Your task to perform on an android device: turn off data saver in the chrome app Image 0: 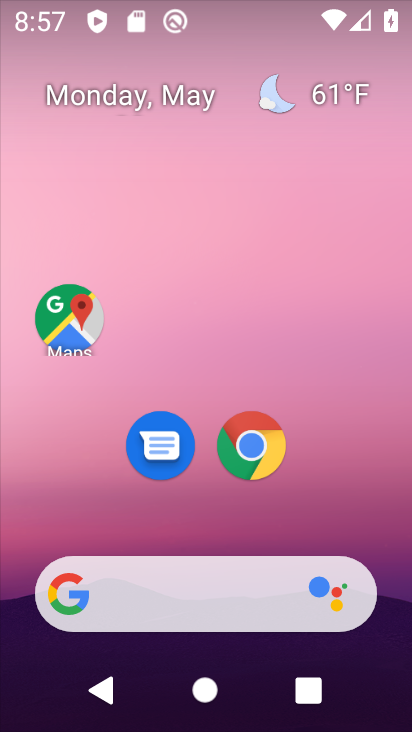
Step 0: drag from (373, 517) to (318, 104)
Your task to perform on an android device: turn off data saver in the chrome app Image 1: 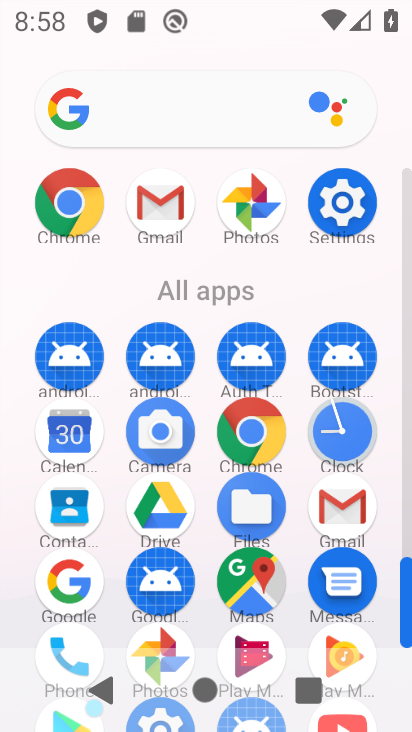
Step 1: click (269, 435)
Your task to perform on an android device: turn off data saver in the chrome app Image 2: 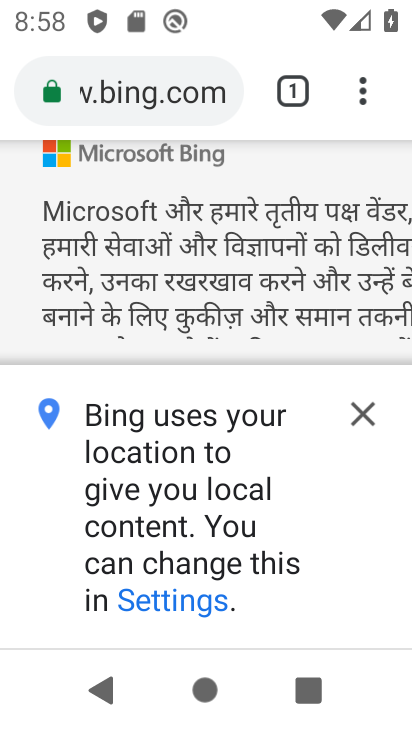
Step 2: click (362, 99)
Your task to perform on an android device: turn off data saver in the chrome app Image 3: 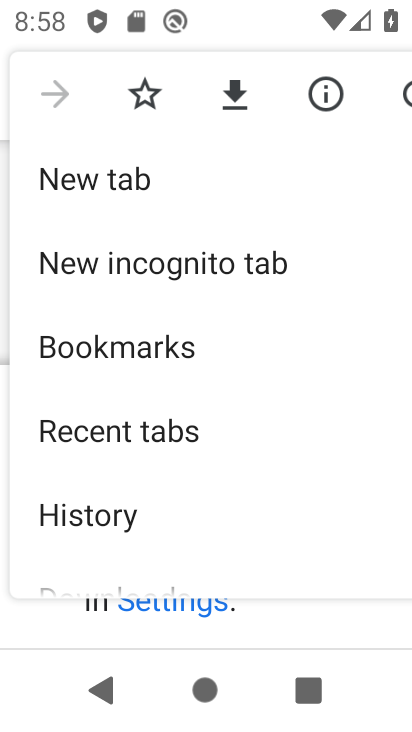
Step 3: drag from (352, 505) to (371, 289)
Your task to perform on an android device: turn off data saver in the chrome app Image 4: 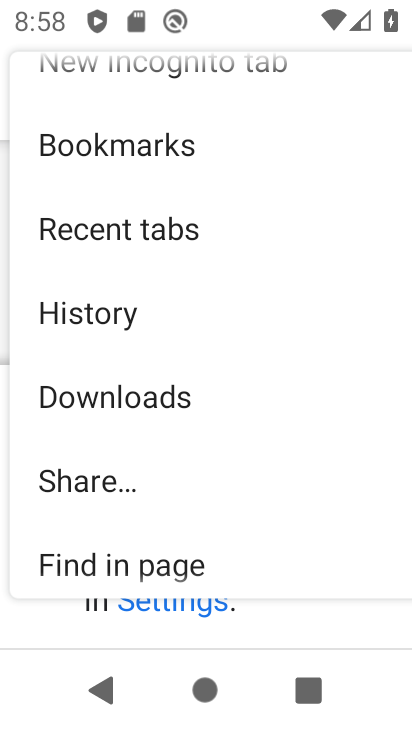
Step 4: drag from (306, 476) to (320, 358)
Your task to perform on an android device: turn off data saver in the chrome app Image 5: 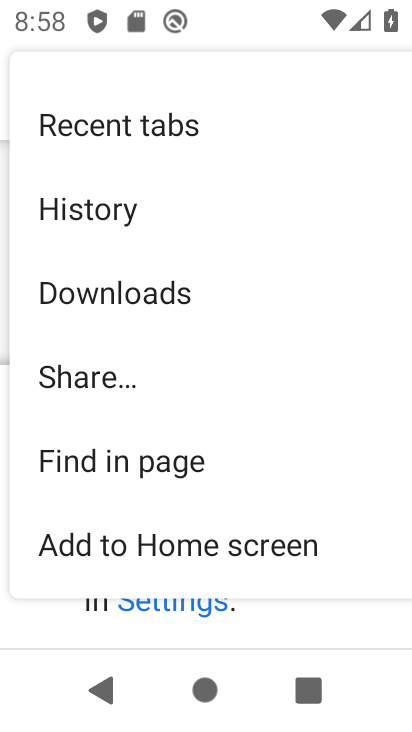
Step 5: drag from (345, 486) to (362, 349)
Your task to perform on an android device: turn off data saver in the chrome app Image 6: 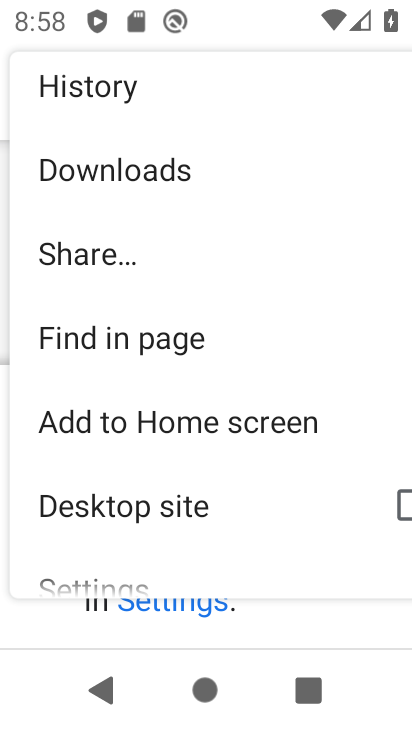
Step 6: drag from (319, 500) to (332, 355)
Your task to perform on an android device: turn off data saver in the chrome app Image 7: 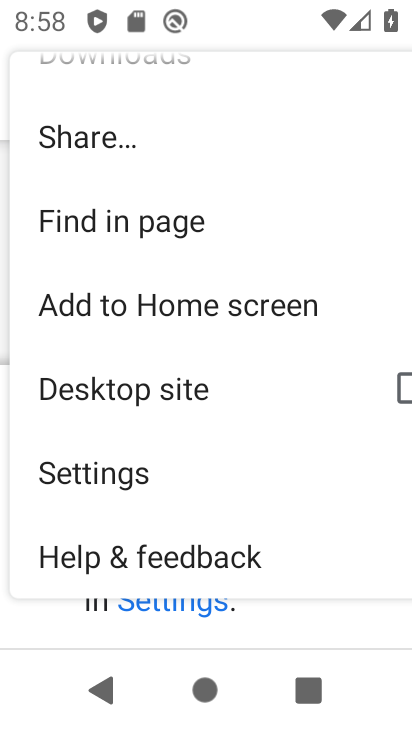
Step 7: drag from (298, 463) to (302, 328)
Your task to perform on an android device: turn off data saver in the chrome app Image 8: 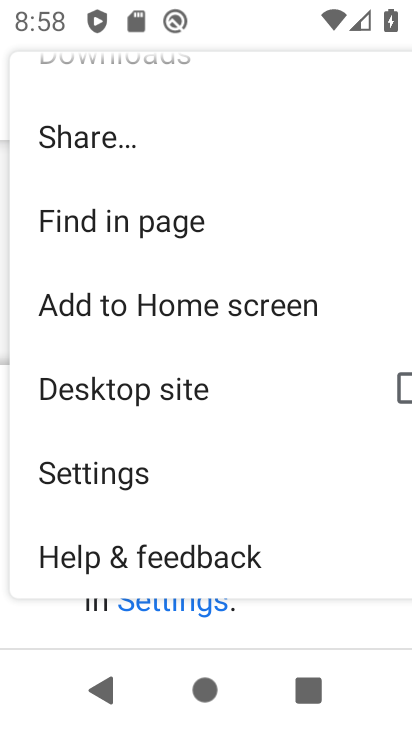
Step 8: click (141, 481)
Your task to perform on an android device: turn off data saver in the chrome app Image 9: 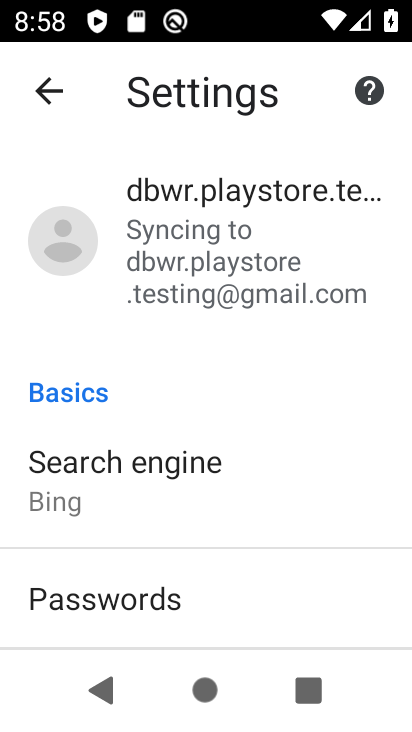
Step 9: drag from (325, 517) to (346, 400)
Your task to perform on an android device: turn off data saver in the chrome app Image 10: 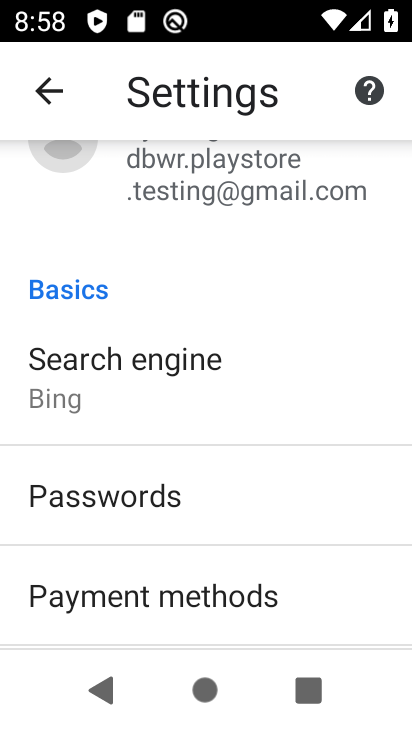
Step 10: drag from (344, 552) to (349, 449)
Your task to perform on an android device: turn off data saver in the chrome app Image 11: 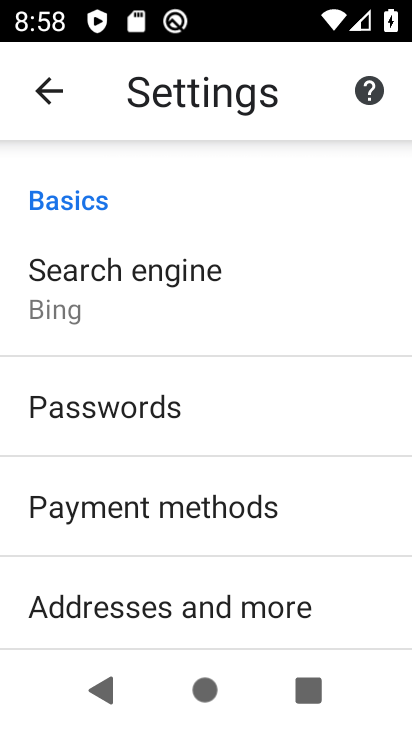
Step 11: drag from (359, 496) to (351, 408)
Your task to perform on an android device: turn off data saver in the chrome app Image 12: 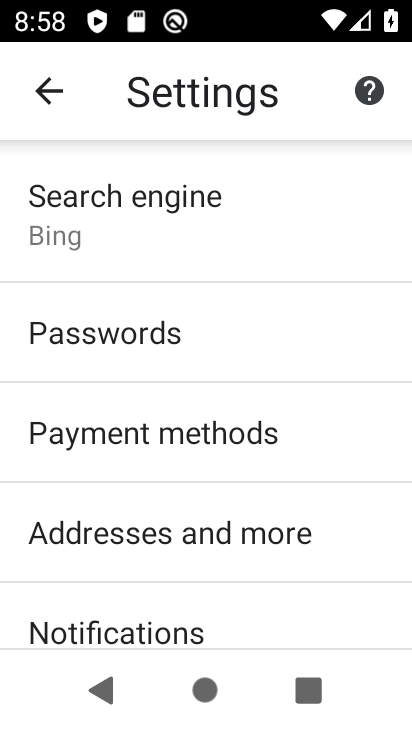
Step 12: drag from (352, 550) to (365, 459)
Your task to perform on an android device: turn off data saver in the chrome app Image 13: 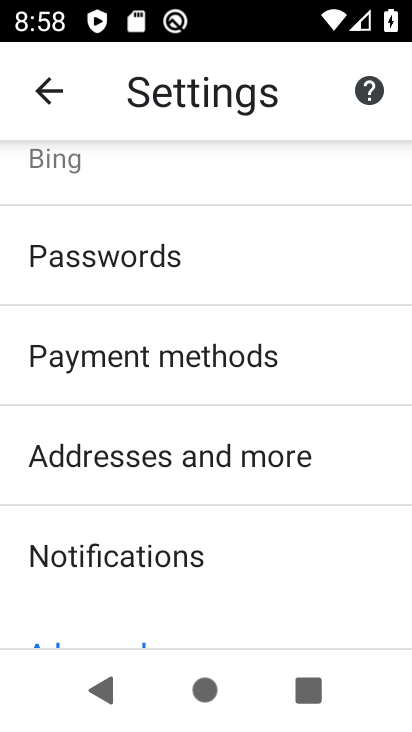
Step 13: drag from (360, 564) to (372, 481)
Your task to perform on an android device: turn off data saver in the chrome app Image 14: 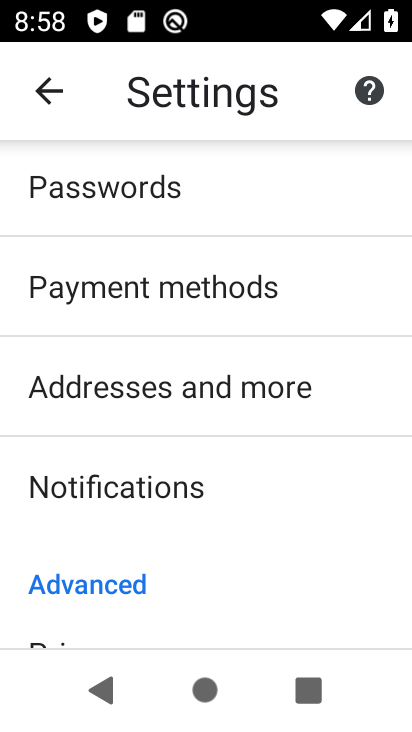
Step 14: drag from (352, 580) to (345, 457)
Your task to perform on an android device: turn off data saver in the chrome app Image 15: 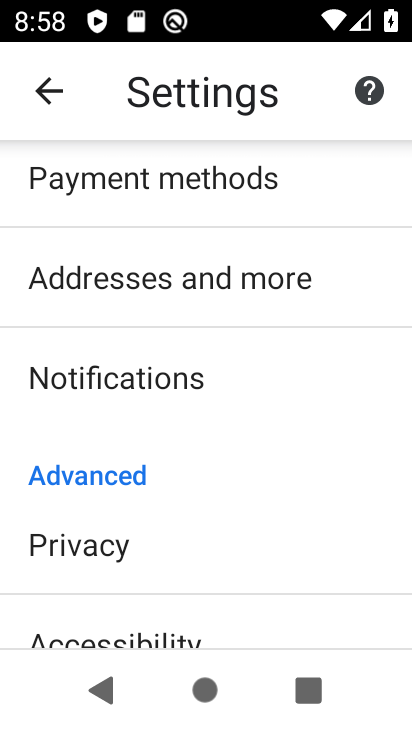
Step 15: drag from (346, 534) to (344, 449)
Your task to perform on an android device: turn off data saver in the chrome app Image 16: 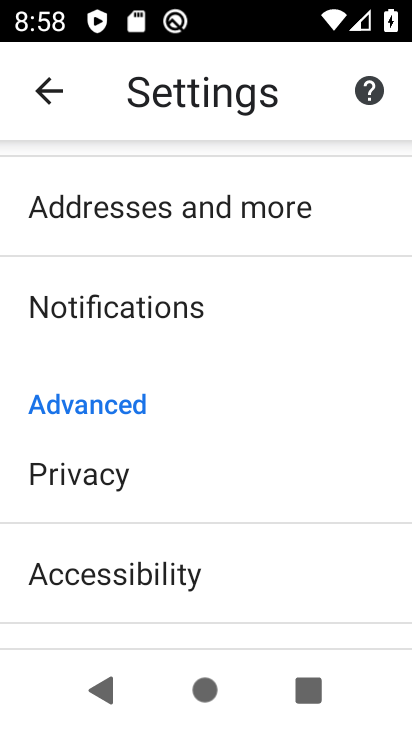
Step 16: drag from (356, 537) to (356, 437)
Your task to perform on an android device: turn off data saver in the chrome app Image 17: 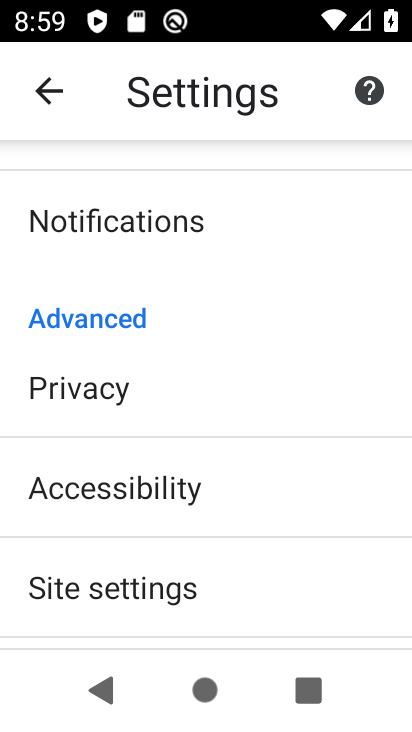
Step 17: drag from (352, 523) to (361, 424)
Your task to perform on an android device: turn off data saver in the chrome app Image 18: 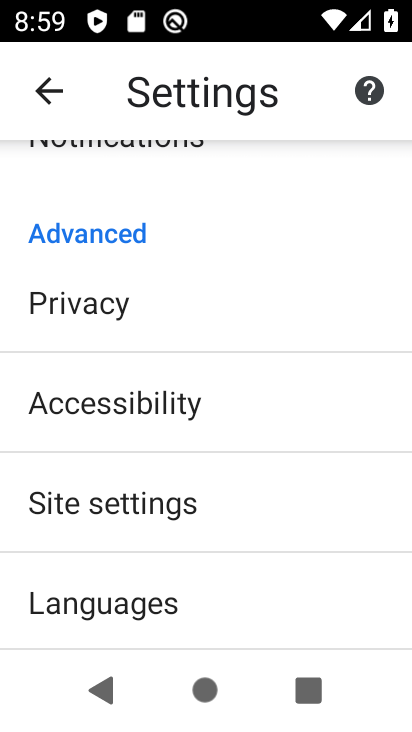
Step 18: drag from (345, 526) to (351, 423)
Your task to perform on an android device: turn off data saver in the chrome app Image 19: 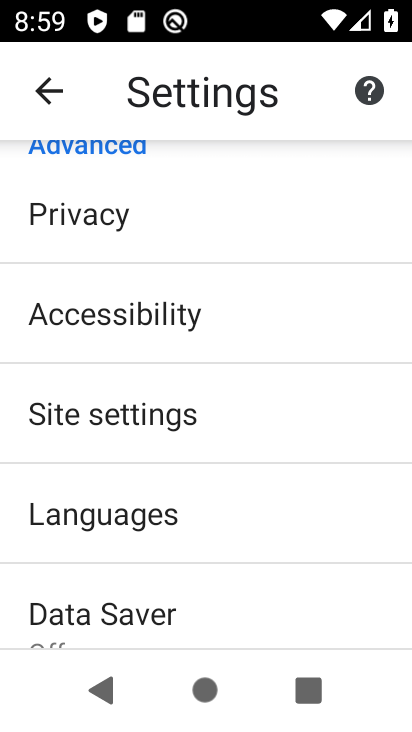
Step 19: drag from (327, 559) to (337, 398)
Your task to perform on an android device: turn off data saver in the chrome app Image 20: 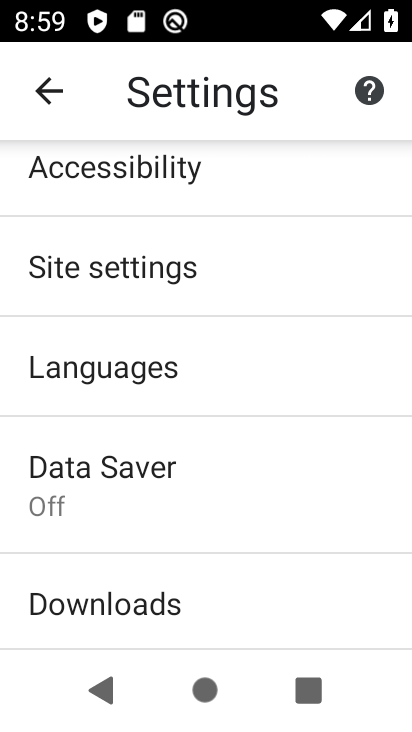
Step 20: drag from (344, 568) to (347, 403)
Your task to perform on an android device: turn off data saver in the chrome app Image 21: 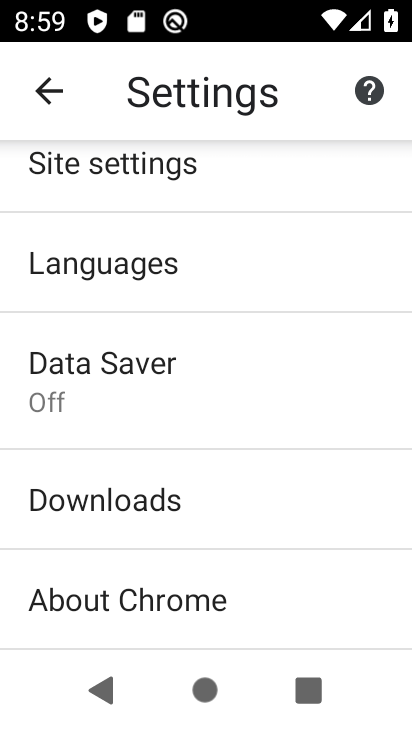
Step 21: click (249, 391)
Your task to perform on an android device: turn off data saver in the chrome app Image 22: 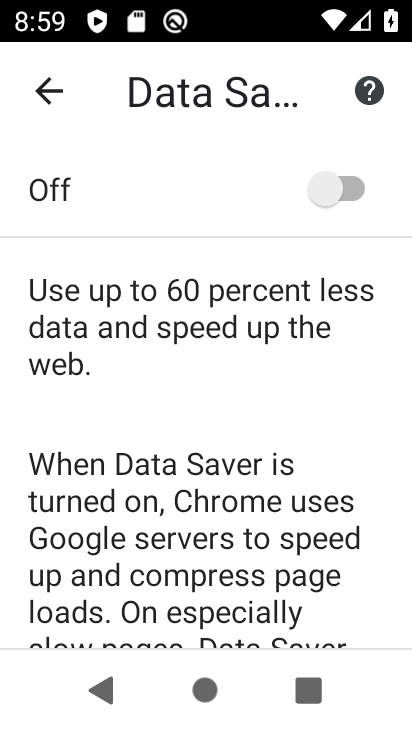
Step 22: task complete